Your task to perform on an android device: Show me popular videos on Youtube Image 0: 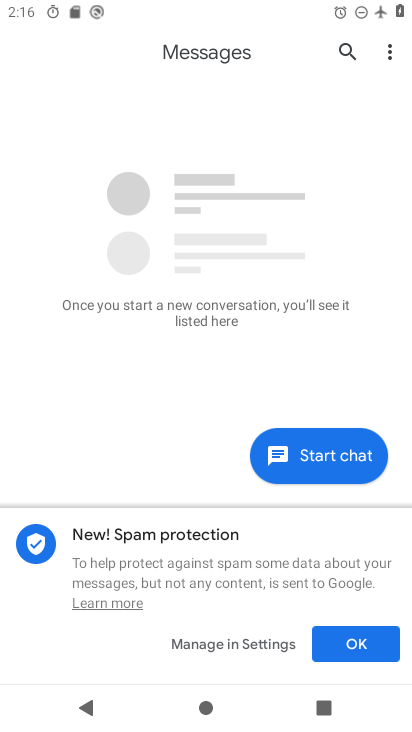
Step 0: press home button
Your task to perform on an android device: Show me popular videos on Youtube Image 1: 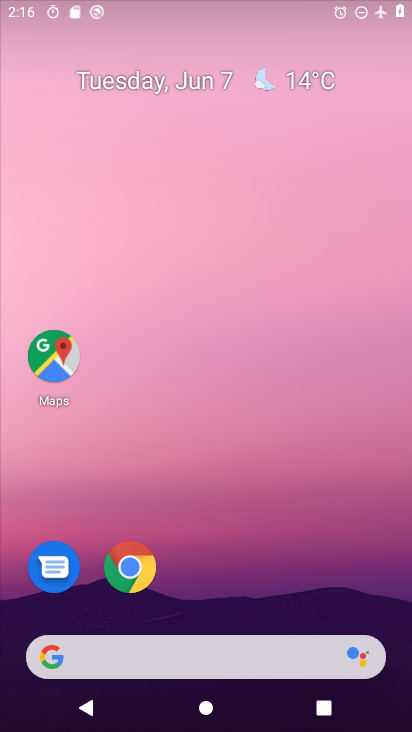
Step 1: drag from (324, 451) to (347, 9)
Your task to perform on an android device: Show me popular videos on Youtube Image 2: 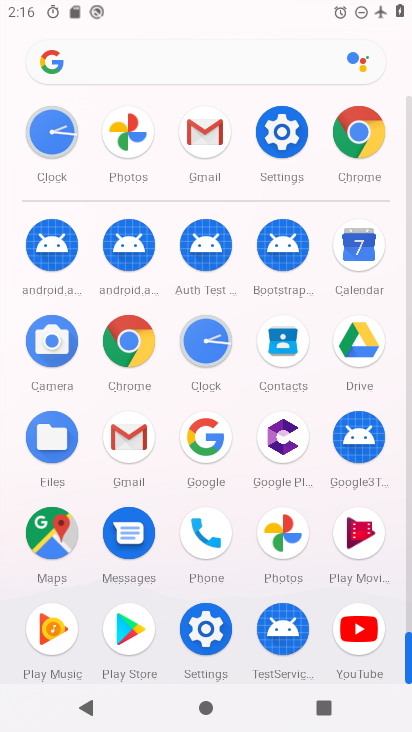
Step 2: click (380, 630)
Your task to perform on an android device: Show me popular videos on Youtube Image 3: 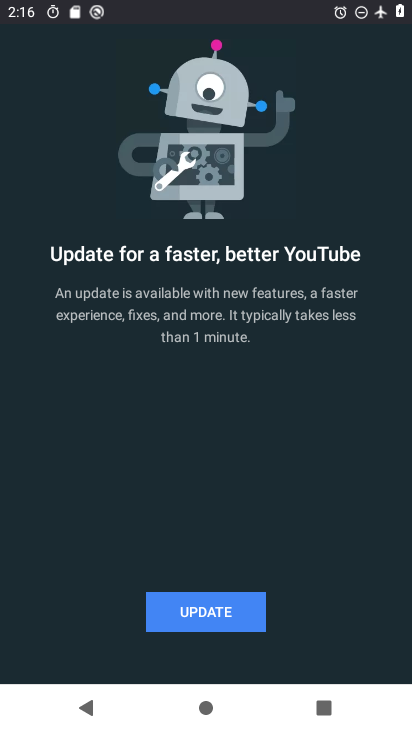
Step 3: click (188, 616)
Your task to perform on an android device: Show me popular videos on Youtube Image 4: 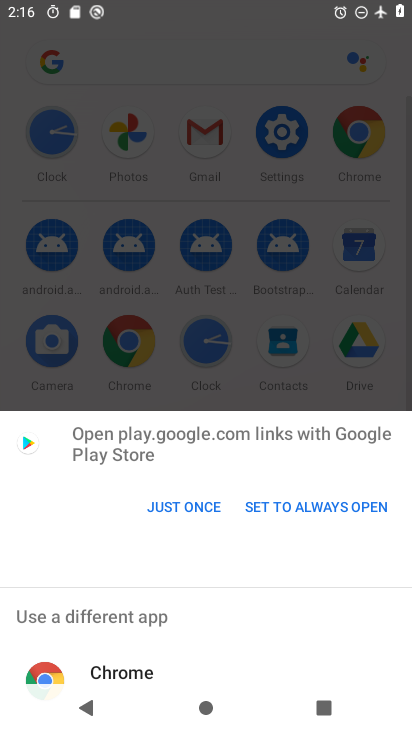
Step 4: click (195, 508)
Your task to perform on an android device: Show me popular videos on Youtube Image 5: 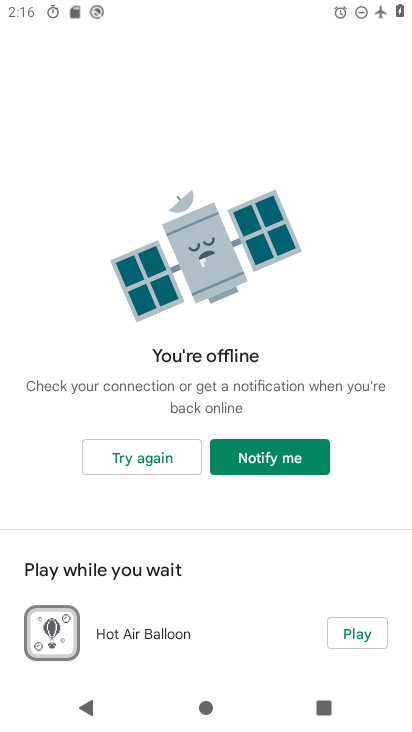
Step 5: click (147, 458)
Your task to perform on an android device: Show me popular videos on Youtube Image 6: 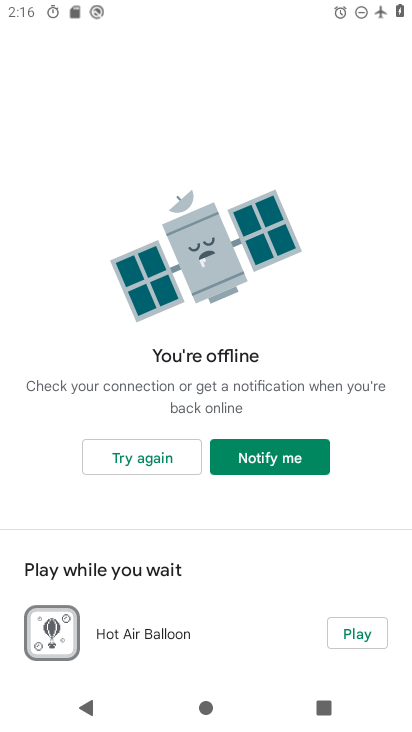
Step 6: task complete